Your task to perform on an android device: Look up the best rated gaming chair on Best Buy Image 0: 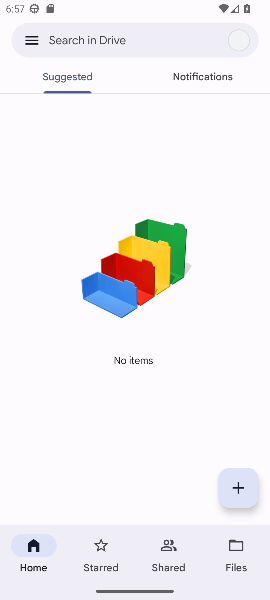
Step 0: press home button
Your task to perform on an android device: Look up the best rated gaming chair on Best Buy Image 1: 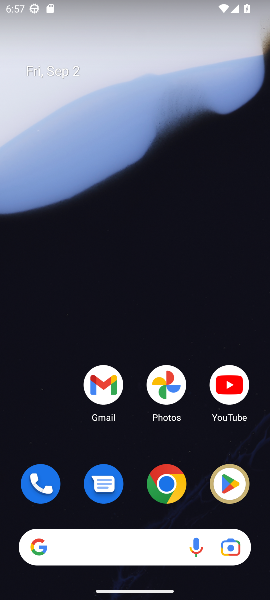
Step 1: click (172, 482)
Your task to perform on an android device: Look up the best rated gaming chair on Best Buy Image 2: 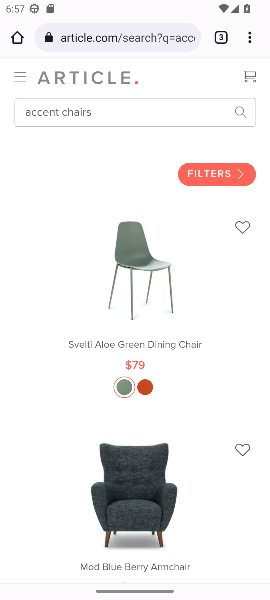
Step 2: click (141, 35)
Your task to perform on an android device: Look up the best rated gaming chair on Best Buy Image 3: 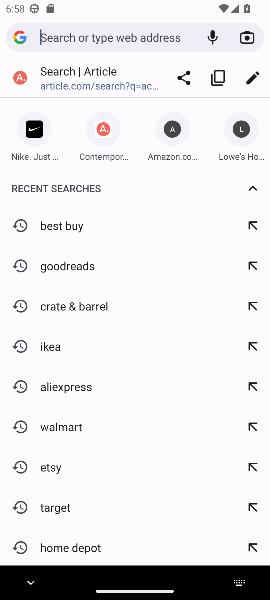
Step 3: type "Best Buy"
Your task to perform on an android device: Look up the best rated gaming chair on Best Buy Image 4: 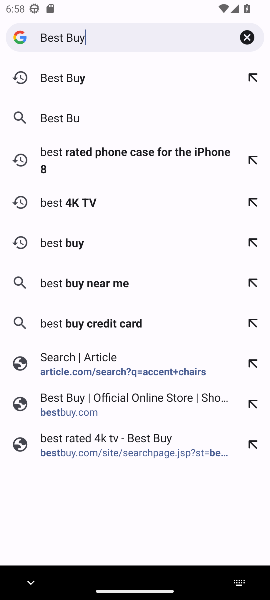
Step 4: press enter
Your task to perform on an android device: Look up the best rated gaming chair on Best Buy Image 5: 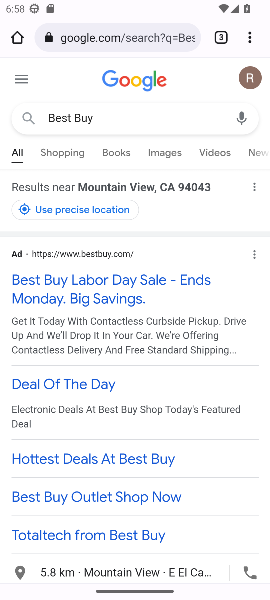
Step 5: drag from (167, 519) to (200, 311)
Your task to perform on an android device: Look up the best rated gaming chair on Best Buy Image 6: 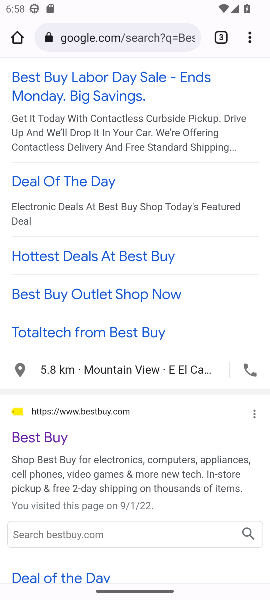
Step 6: click (49, 434)
Your task to perform on an android device: Look up the best rated gaming chair on Best Buy Image 7: 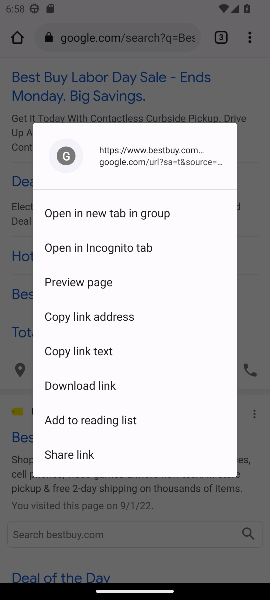
Step 7: click (246, 494)
Your task to perform on an android device: Look up the best rated gaming chair on Best Buy Image 8: 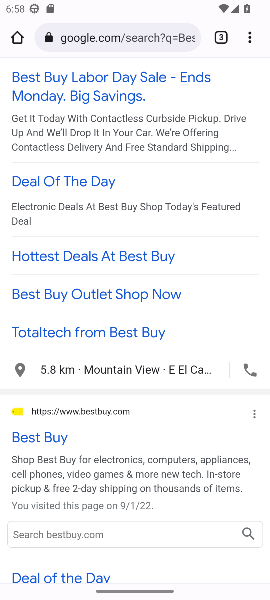
Step 8: click (47, 434)
Your task to perform on an android device: Look up the best rated gaming chair on Best Buy Image 9: 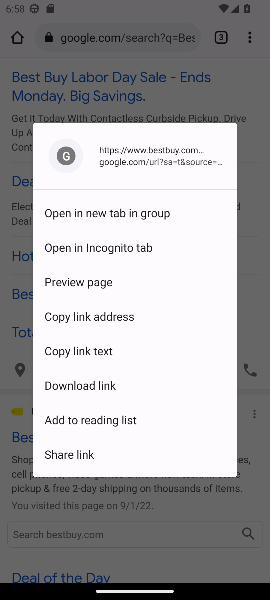
Step 9: click (259, 487)
Your task to perform on an android device: Look up the best rated gaming chair on Best Buy Image 10: 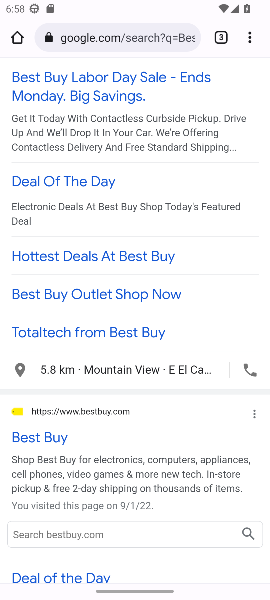
Step 10: click (55, 435)
Your task to perform on an android device: Look up the best rated gaming chair on Best Buy Image 11: 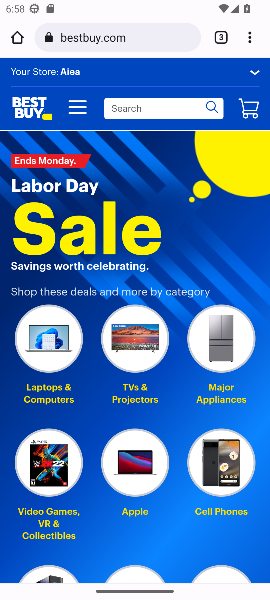
Step 11: click (170, 108)
Your task to perform on an android device: Look up the best rated gaming chair on Best Buy Image 12: 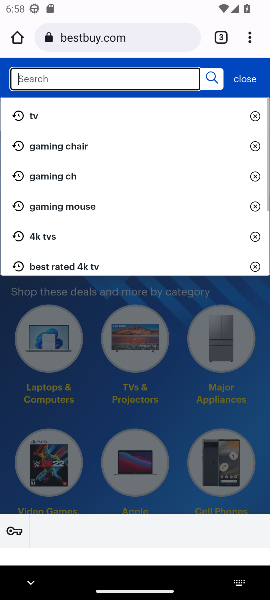
Step 12: type "gaming chair"
Your task to perform on an android device: Look up the best rated gaming chair on Best Buy Image 13: 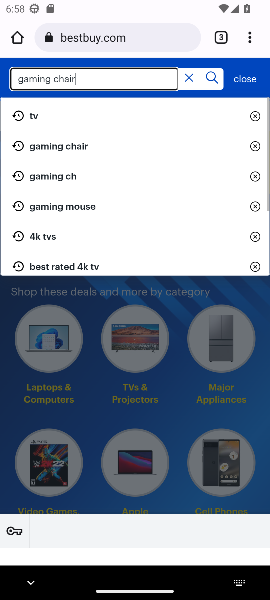
Step 13: press enter
Your task to perform on an android device: Look up the best rated gaming chair on Best Buy Image 14: 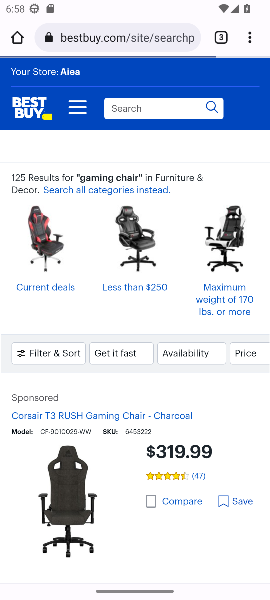
Step 14: task complete